Your task to perform on an android device: Open wifi settings Image 0: 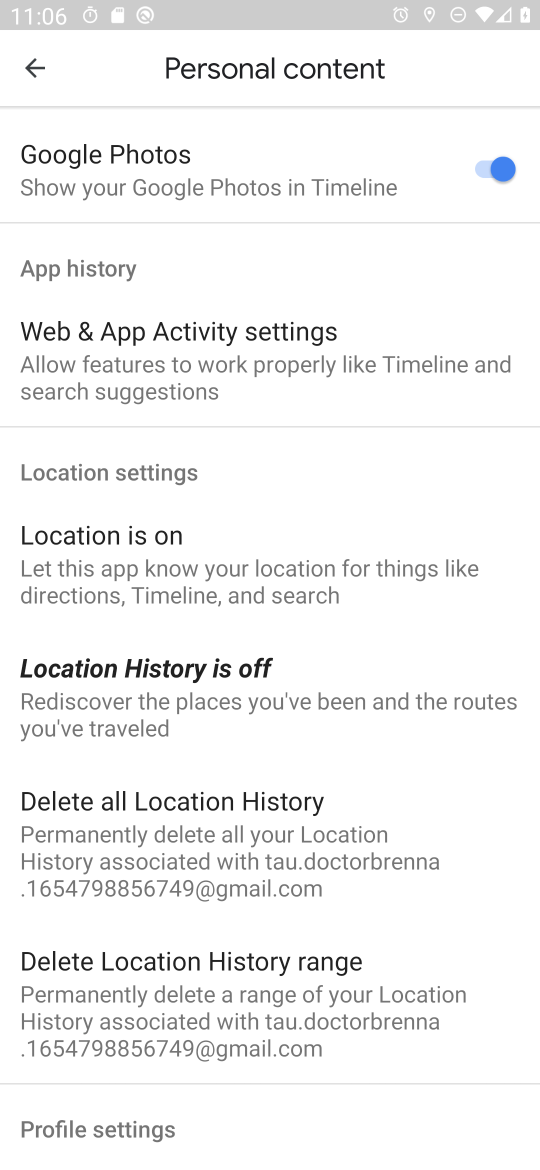
Step 0: press home button
Your task to perform on an android device: Open wifi settings Image 1: 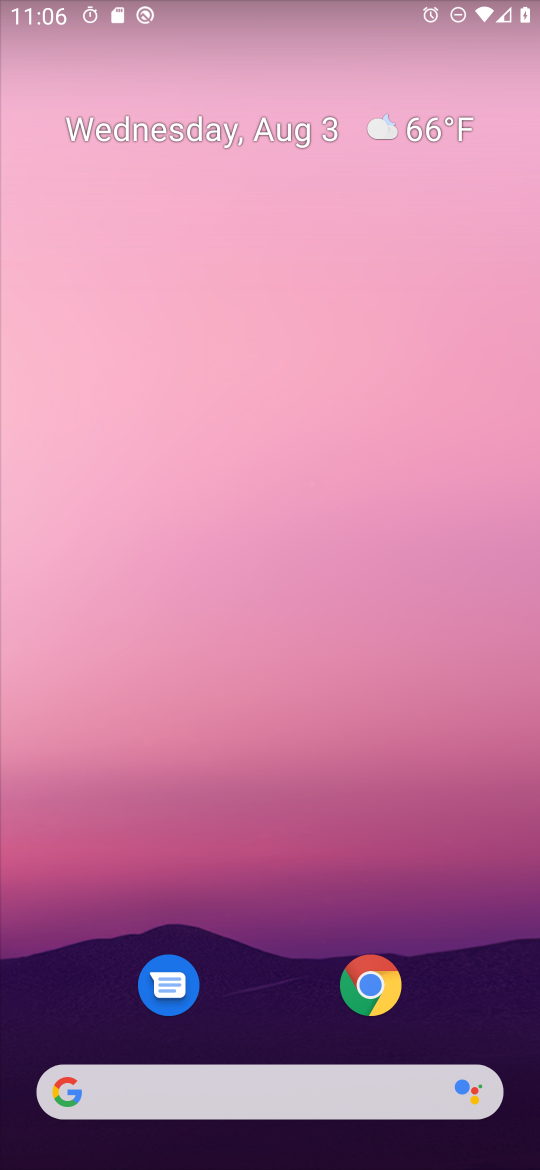
Step 1: drag from (265, 990) to (272, 390)
Your task to perform on an android device: Open wifi settings Image 2: 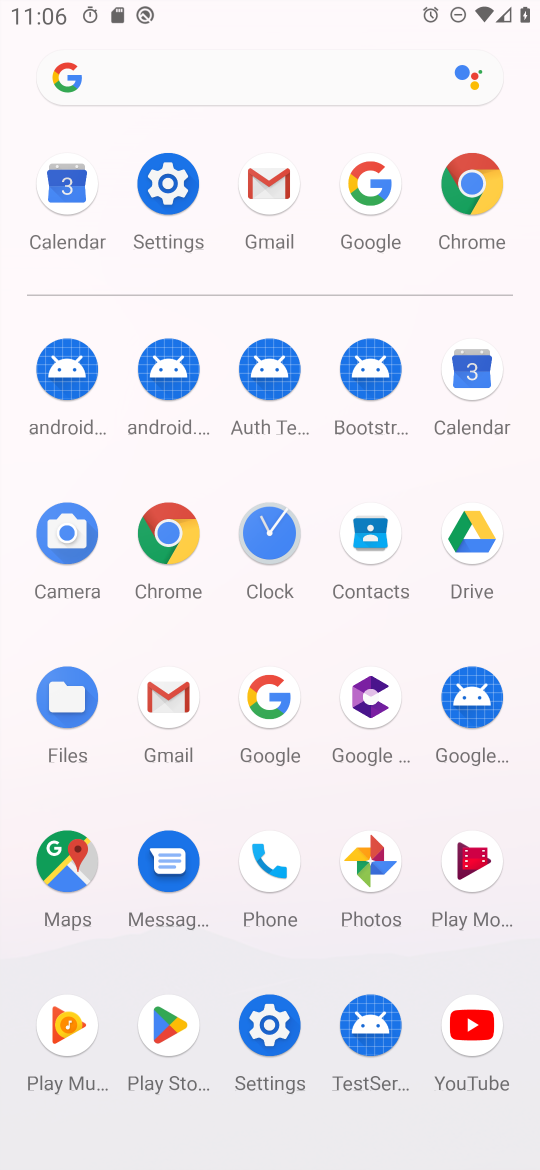
Step 2: click (189, 186)
Your task to perform on an android device: Open wifi settings Image 3: 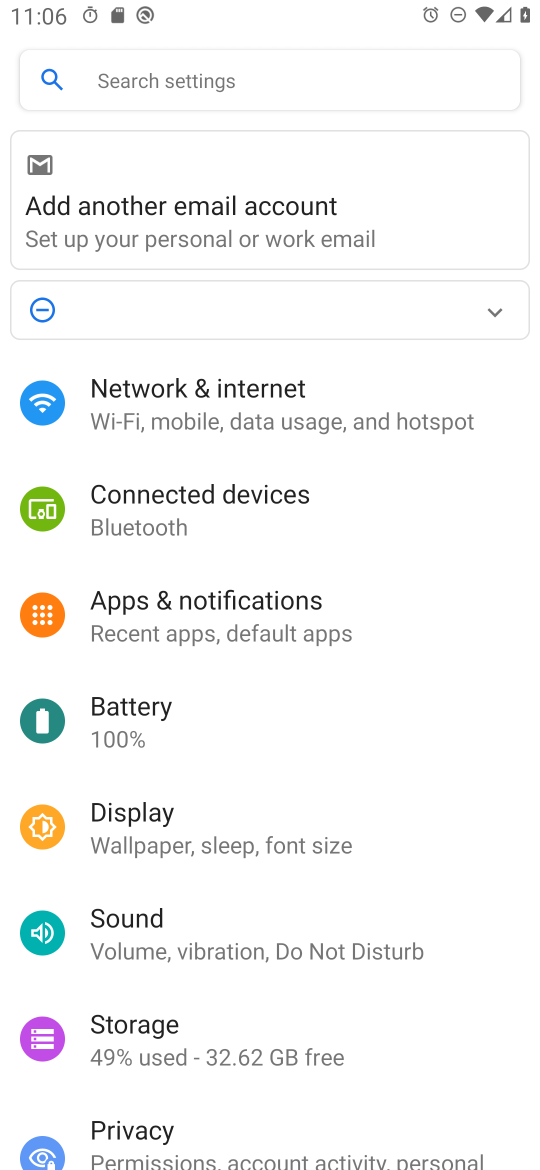
Step 3: click (229, 386)
Your task to perform on an android device: Open wifi settings Image 4: 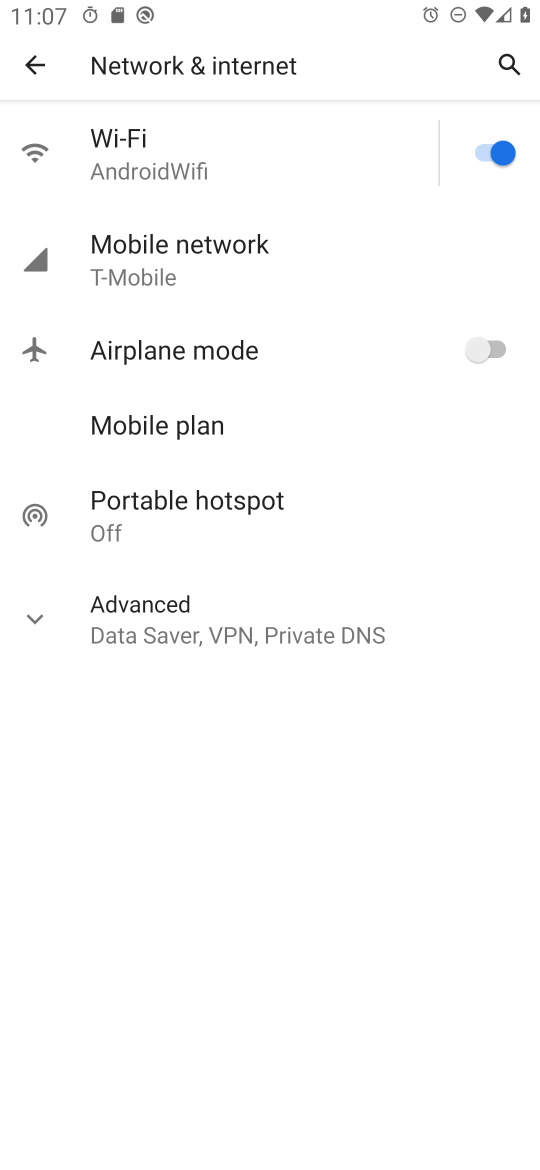
Step 4: click (181, 155)
Your task to perform on an android device: Open wifi settings Image 5: 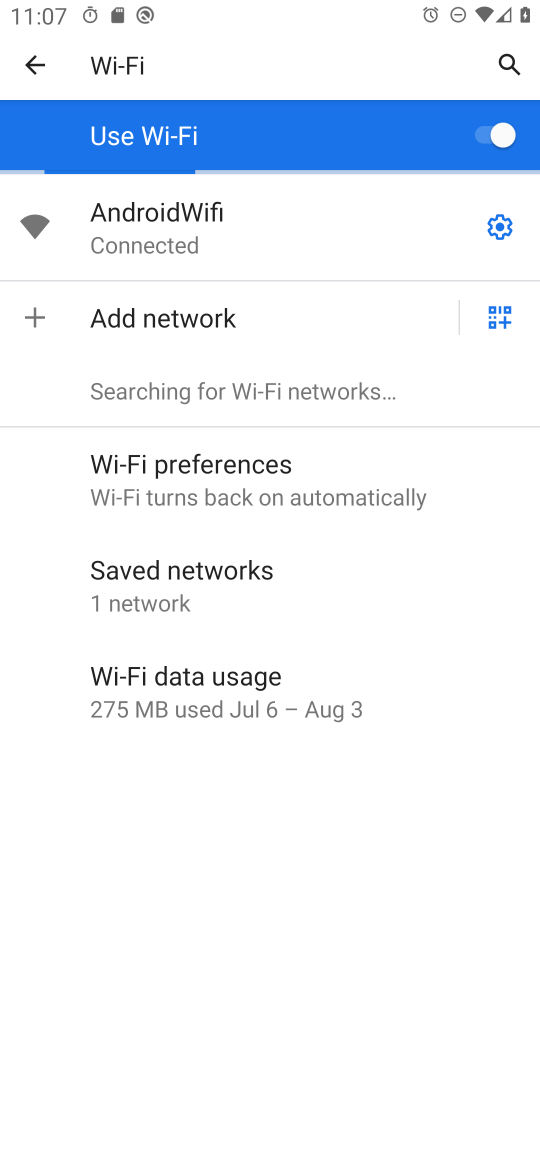
Step 5: task complete